Your task to perform on an android device: change timer sound Image 0: 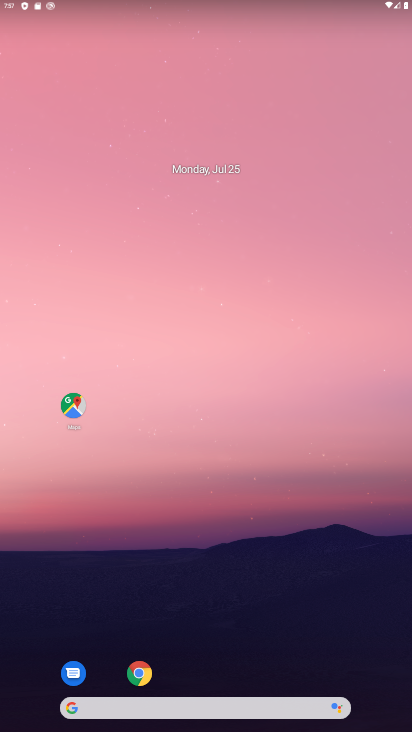
Step 0: drag from (230, 633) to (231, 85)
Your task to perform on an android device: change timer sound Image 1: 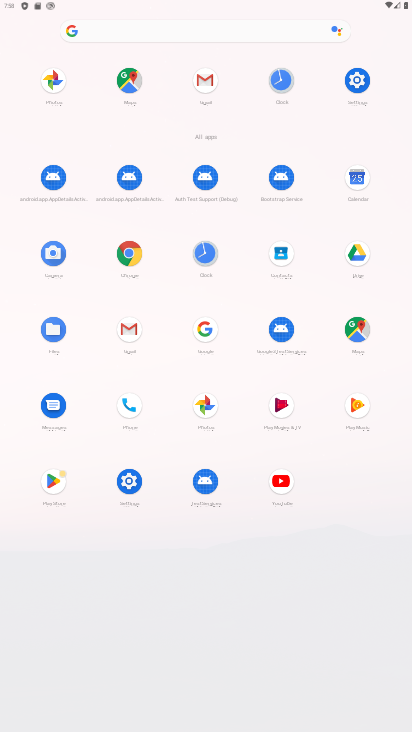
Step 1: click (195, 243)
Your task to perform on an android device: change timer sound Image 2: 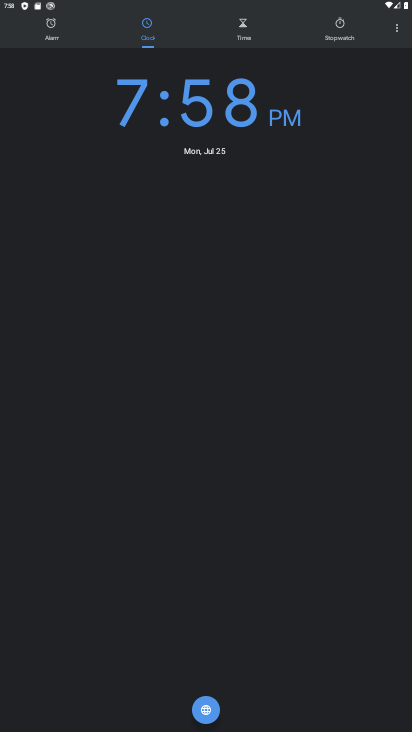
Step 2: click (395, 28)
Your task to perform on an android device: change timer sound Image 3: 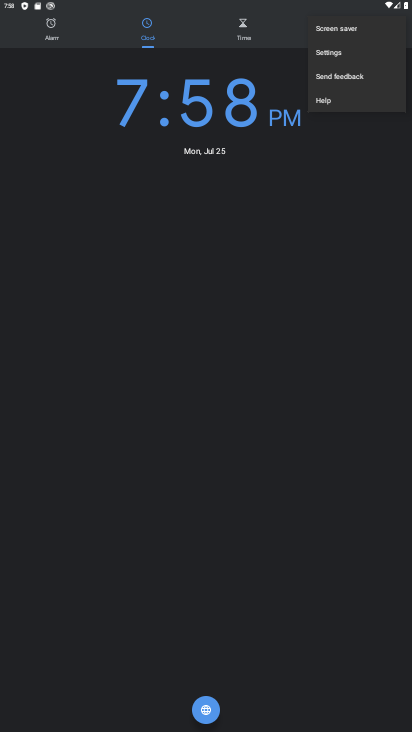
Step 3: click (322, 50)
Your task to perform on an android device: change timer sound Image 4: 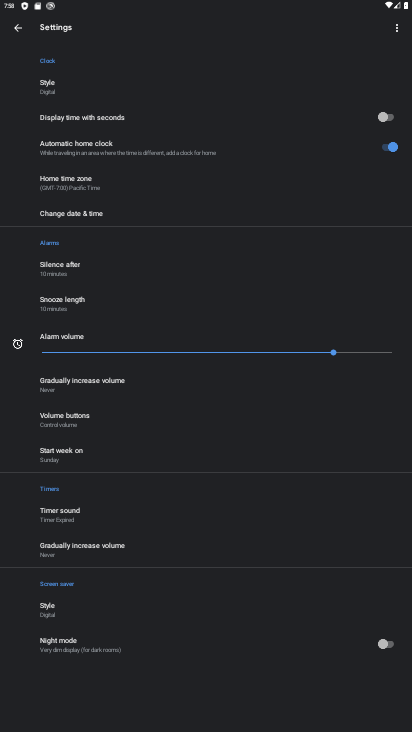
Step 4: click (56, 509)
Your task to perform on an android device: change timer sound Image 5: 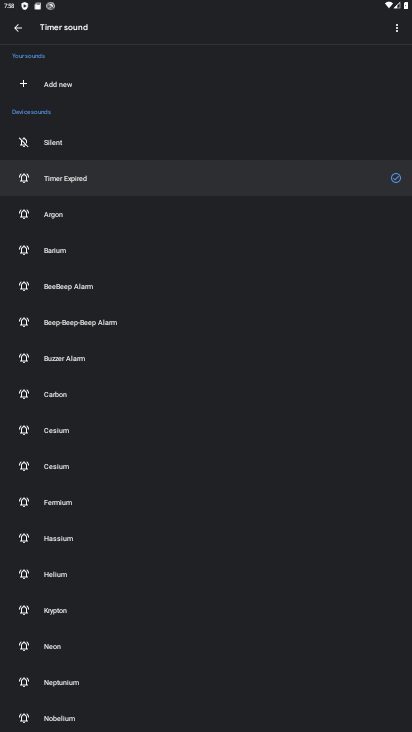
Step 5: click (48, 248)
Your task to perform on an android device: change timer sound Image 6: 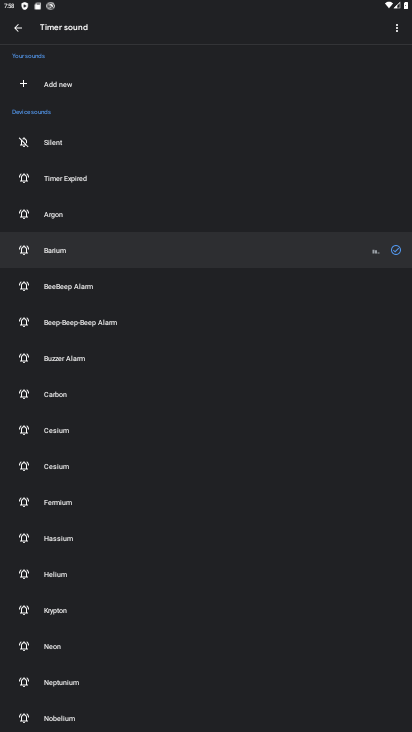
Step 6: click (392, 249)
Your task to perform on an android device: change timer sound Image 7: 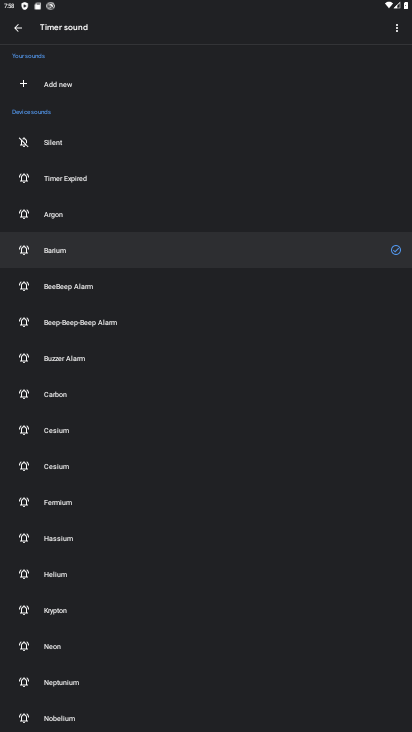
Step 7: task complete